Your task to perform on an android device: Open privacy settings Image 0: 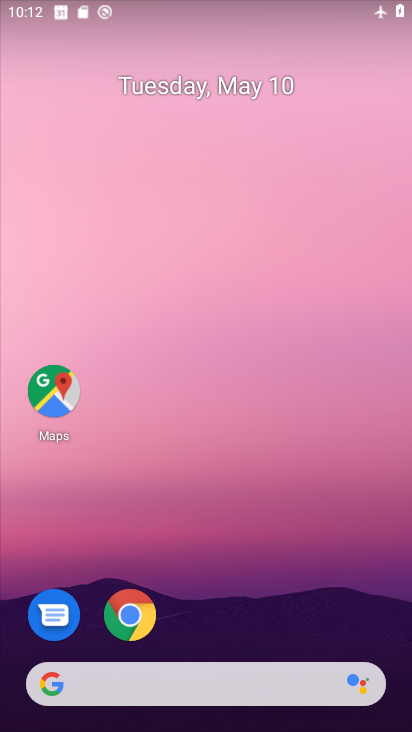
Step 0: drag from (218, 646) to (316, 232)
Your task to perform on an android device: Open privacy settings Image 1: 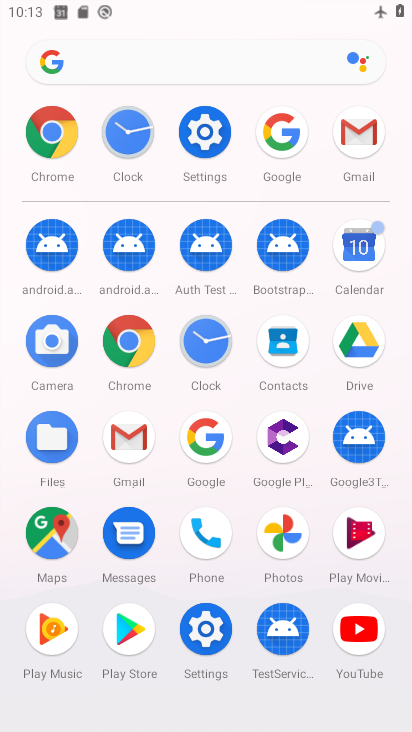
Step 1: click (205, 639)
Your task to perform on an android device: Open privacy settings Image 2: 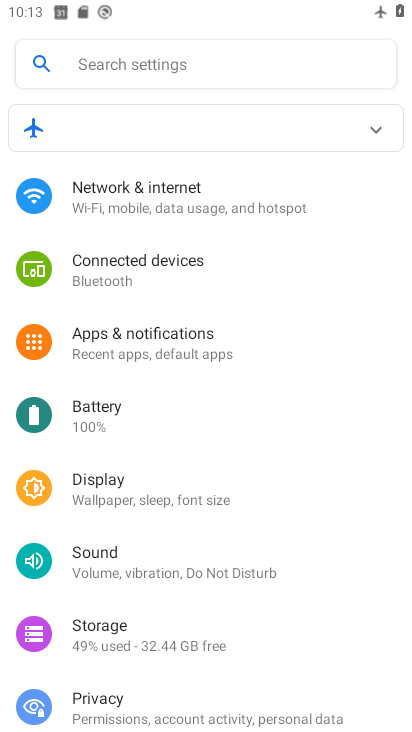
Step 2: drag from (131, 627) to (244, 246)
Your task to perform on an android device: Open privacy settings Image 3: 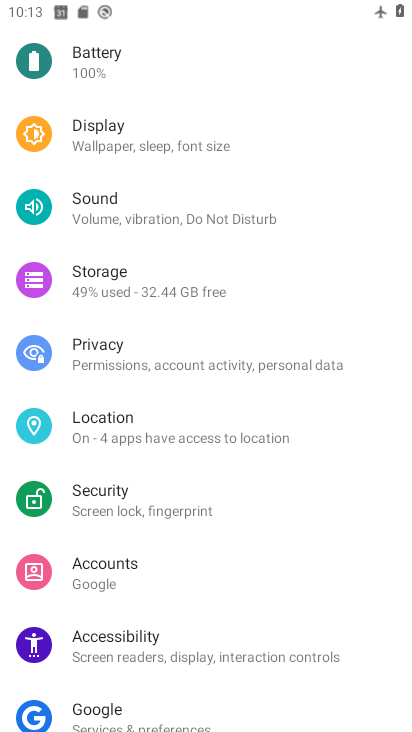
Step 3: click (127, 368)
Your task to perform on an android device: Open privacy settings Image 4: 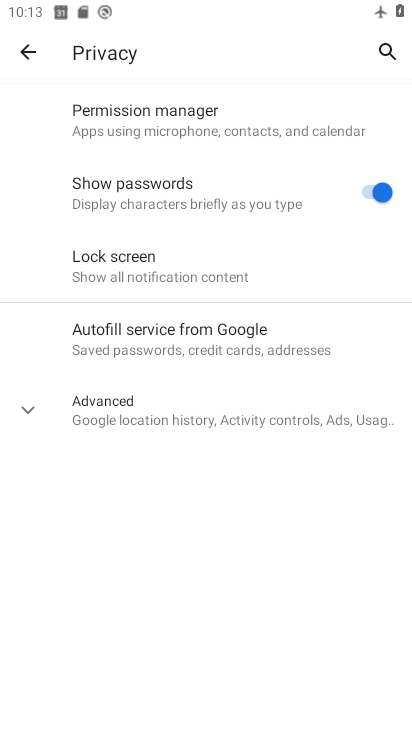
Step 4: task complete